Your task to perform on an android device: Search for Italian restaurants on Maps Image 0: 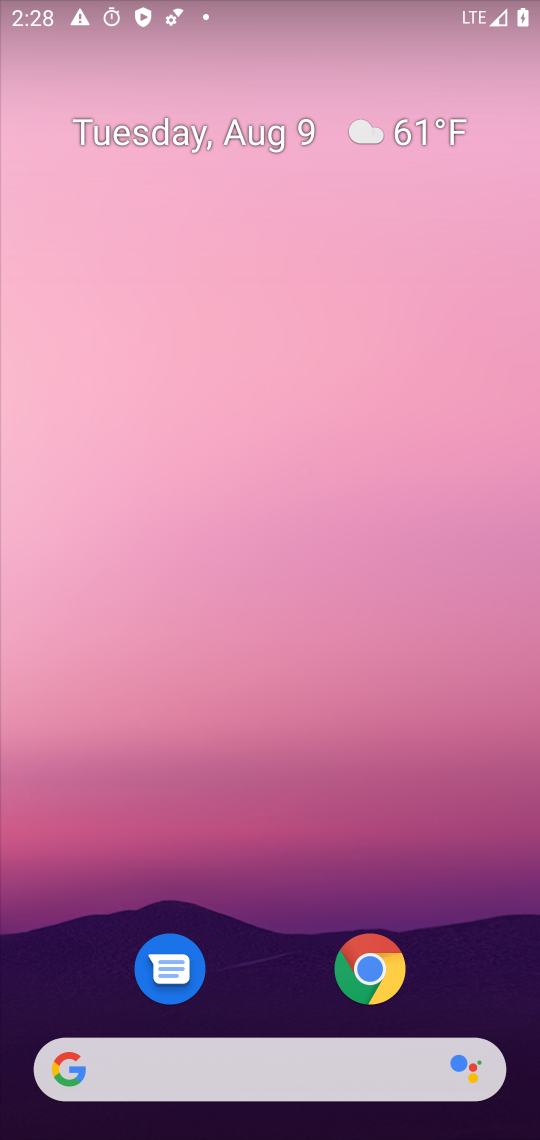
Step 0: press home button
Your task to perform on an android device: Search for Italian restaurants on Maps Image 1: 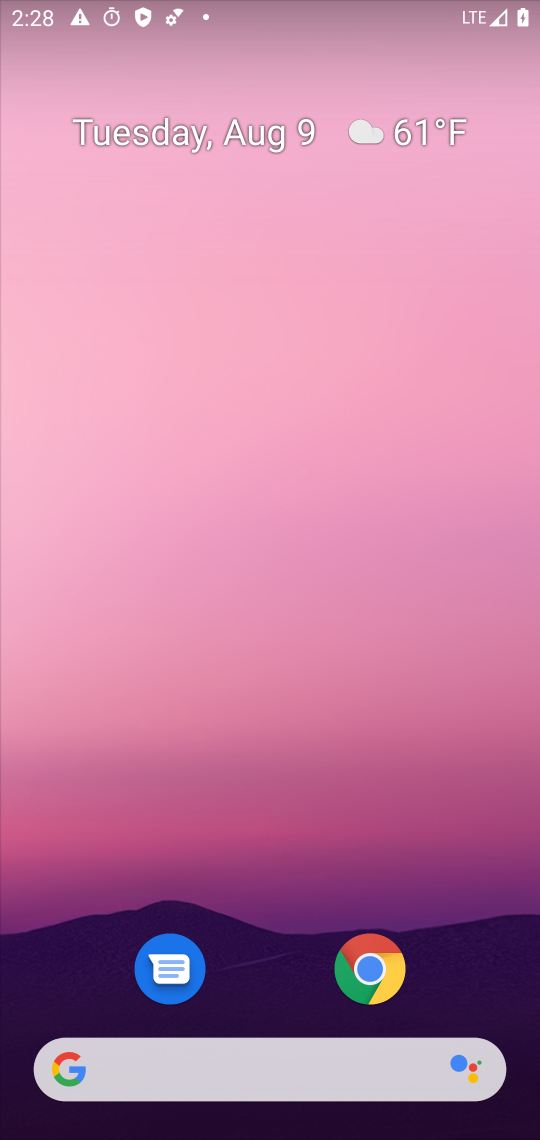
Step 1: drag from (348, 1125) to (298, 388)
Your task to perform on an android device: Search for Italian restaurants on Maps Image 2: 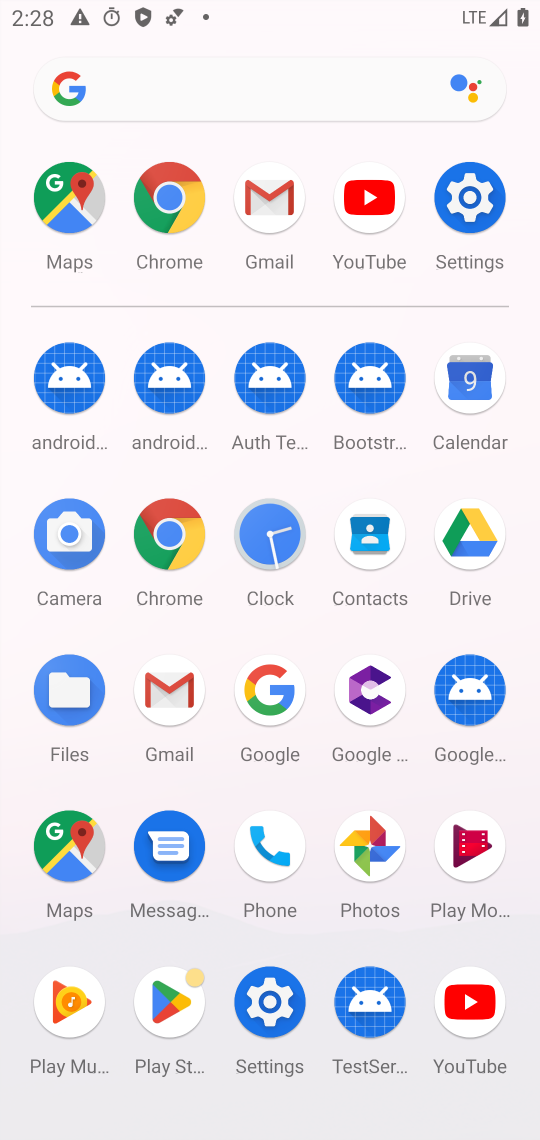
Step 2: click (76, 243)
Your task to perform on an android device: Search for Italian restaurants on Maps Image 3: 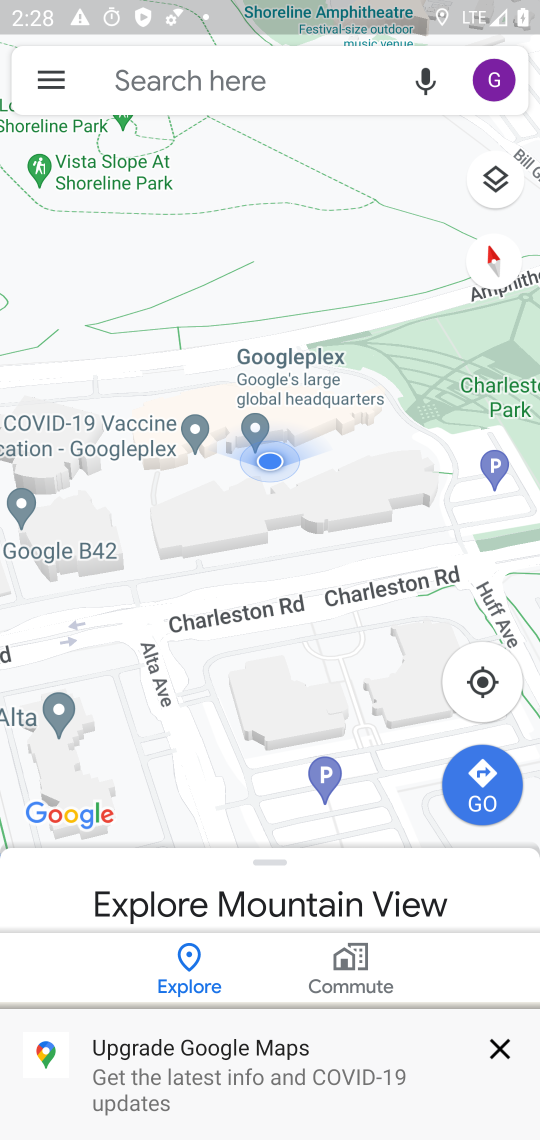
Step 3: click (190, 78)
Your task to perform on an android device: Search for Italian restaurants on Maps Image 4: 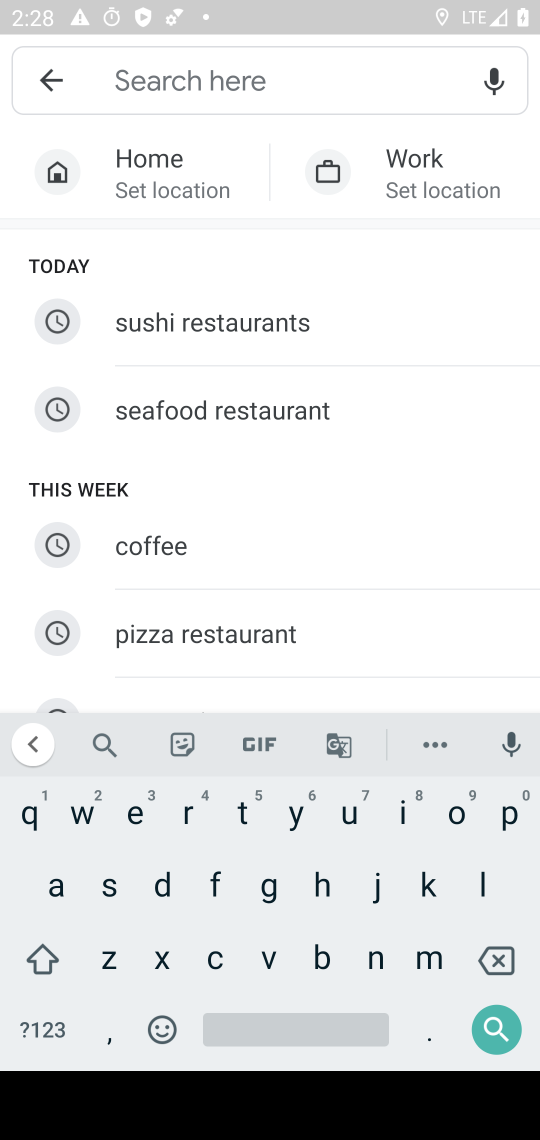
Step 4: click (393, 816)
Your task to perform on an android device: Search for Italian restaurants on Maps Image 5: 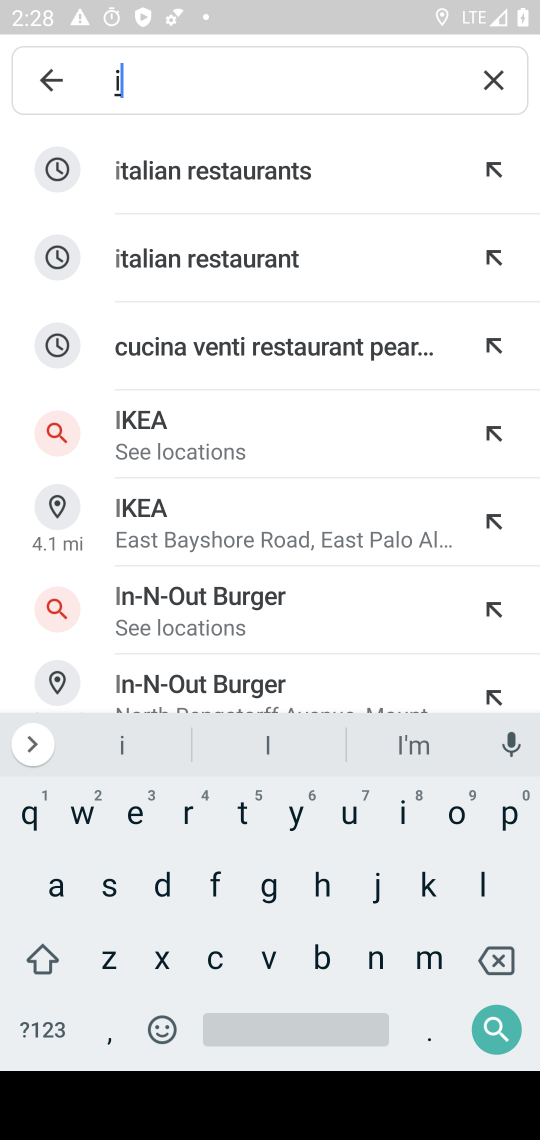
Step 5: click (259, 188)
Your task to perform on an android device: Search for Italian restaurants on Maps Image 6: 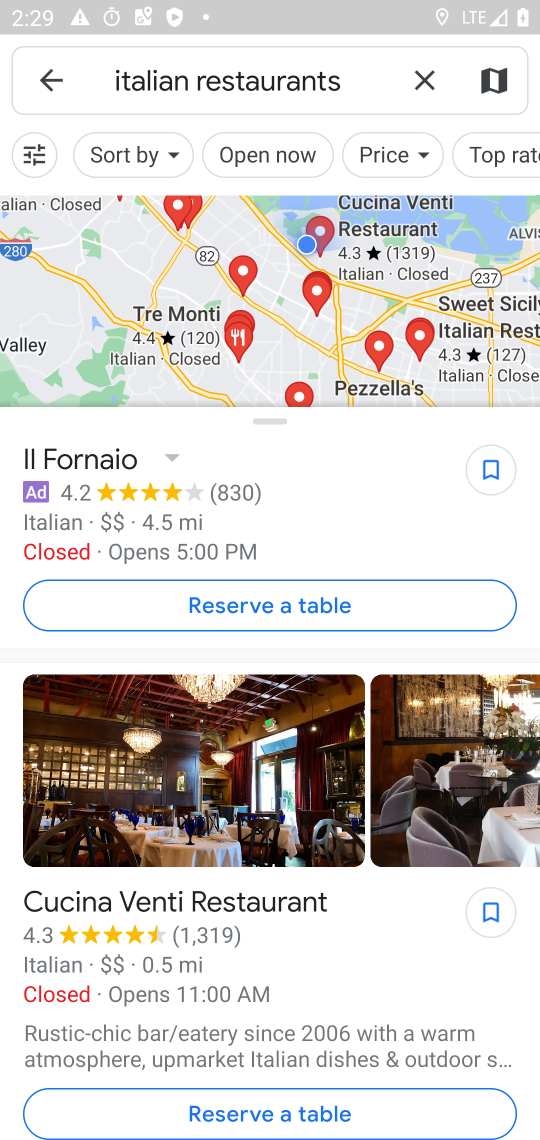
Step 6: task complete